Your task to perform on an android device: Open calendar and show me the second week of next month Image 0: 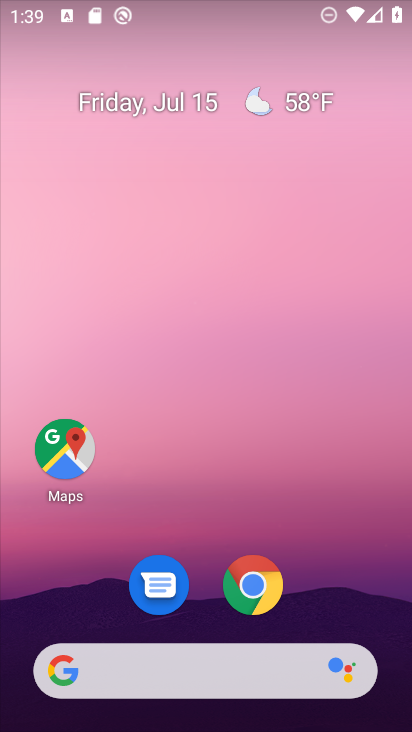
Step 0: drag from (334, 567) to (270, 144)
Your task to perform on an android device: Open calendar and show me the second week of next month Image 1: 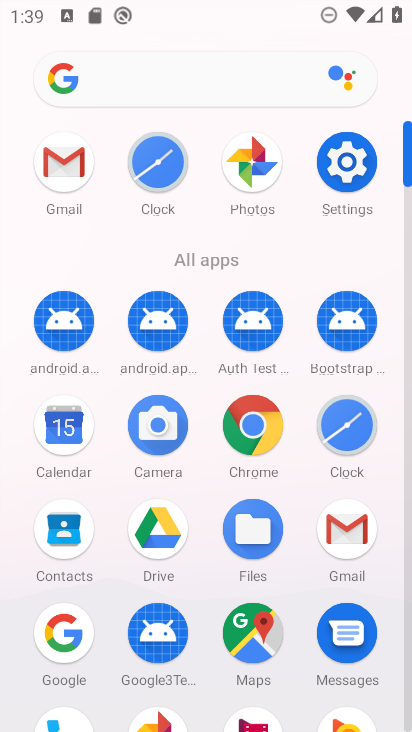
Step 1: click (68, 428)
Your task to perform on an android device: Open calendar and show me the second week of next month Image 2: 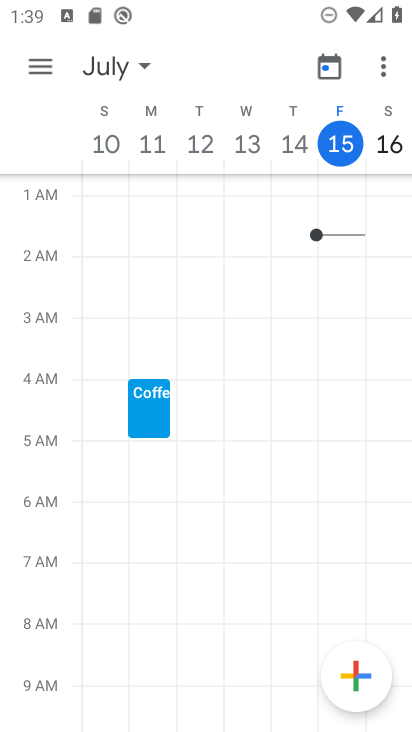
Step 2: task complete